Your task to perform on an android device: turn off smart reply in the gmail app Image 0: 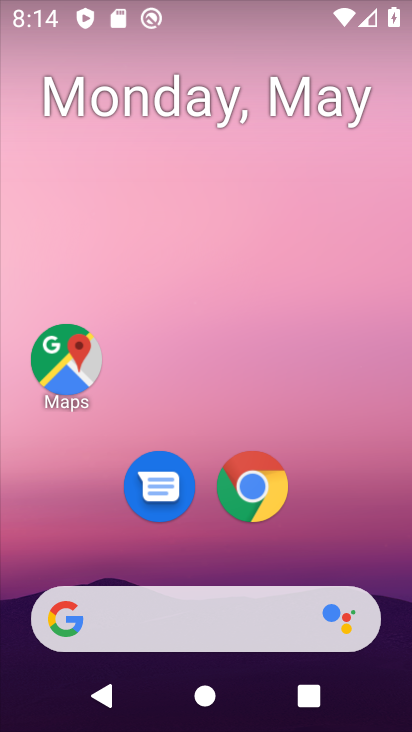
Step 0: drag from (323, 565) to (248, 60)
Your task to perform on an android device: turn off smart reply in the gmail app Image 1: 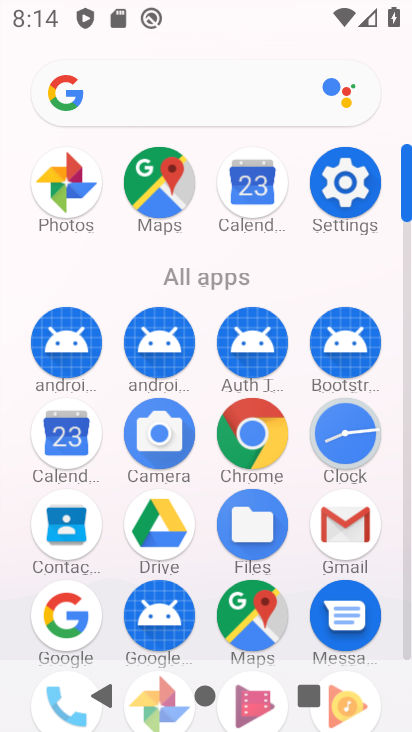
Step 1: click (347, 522)
Your task to perform on an android device: turn off smart reply in the gmail app Image 2: 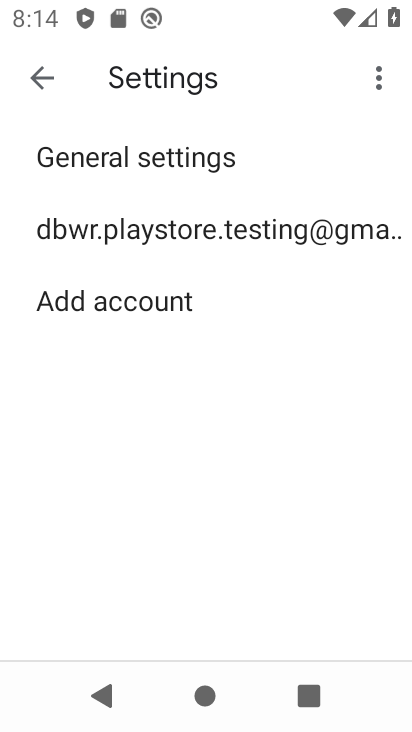
Step 2: click (199, 235)
Your task to perform on an android device: turn off smart reply in the gmail app Image 3: 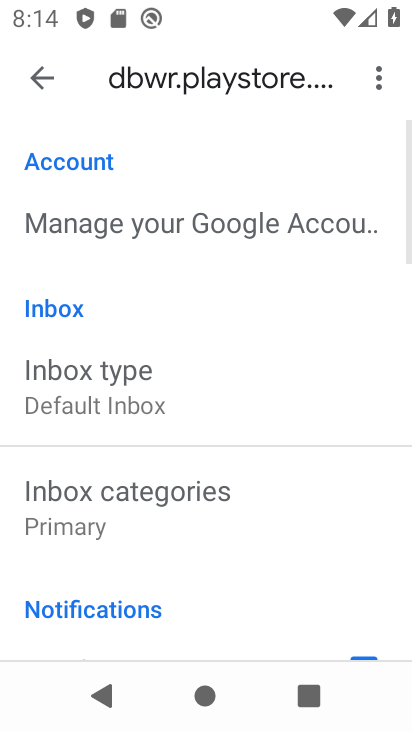
Step 3: drag from (241, 608) to (141, 237)
Your task to perform on an android device: turn off smart reply in the gmail app Image 4: 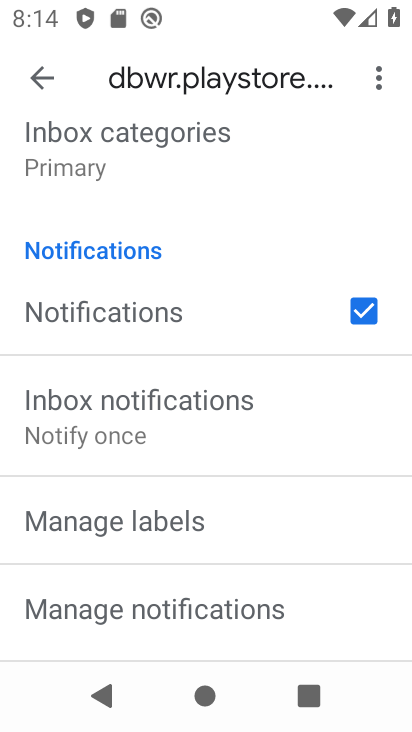
Step 4: drag from (179, 602) to (132, 374)
Your task to perform on an android device: turn off smart reply in the gmail app Image 5: 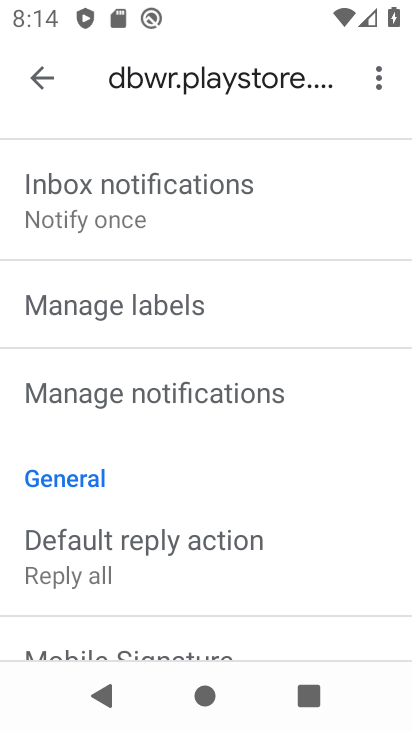
Step 5: drag from (172, 626) to (137, 326)
Your task to perform on an android device: turn off smart reply in the gmail app Image 6: 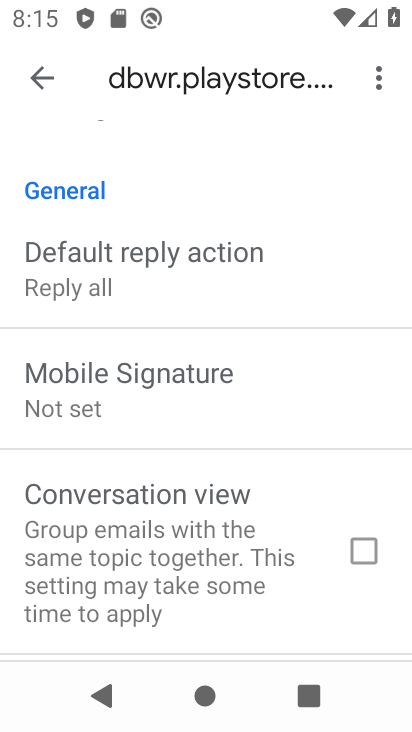
Step 6: drag from (148, 571) to (104, 282)
Your task to perform on an android device: turn off smart reply in the gmail app Image 7: 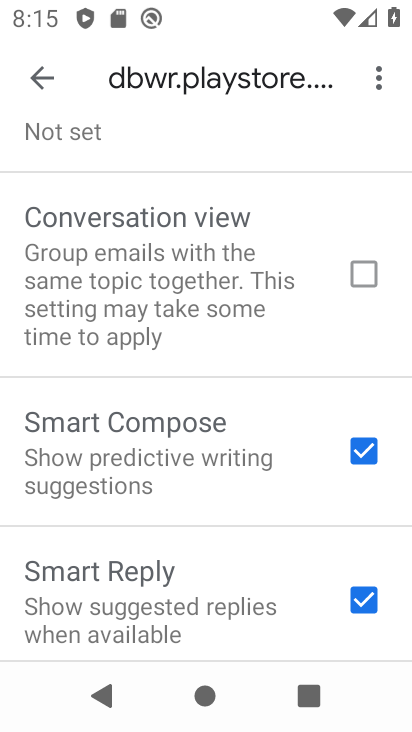
Step 7: click (376, 591)
Your task to perform on an android device: turn off smart reply in the gmail app Image 8: 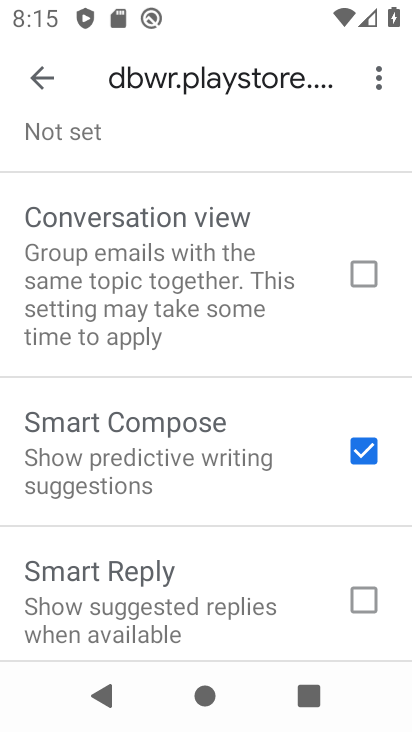
Step 8: task complete